Your task to perform on an android device: toggle location history Image 0: 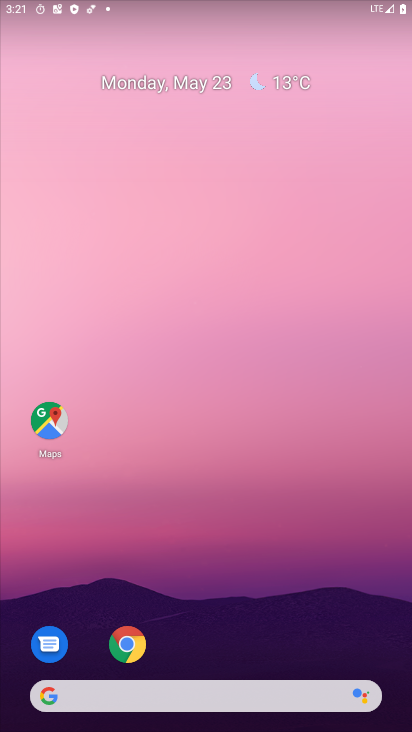
Step 0: drag from (220, 679) to (175, 81)
Your task to perform on an android device: toggle location history Image 1: 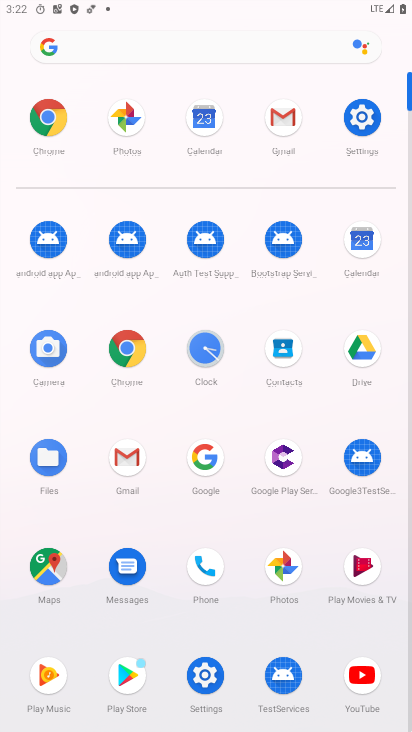
Step 1: click (184, 690)
Your task to perform on an android device: toggle location history Image 2: 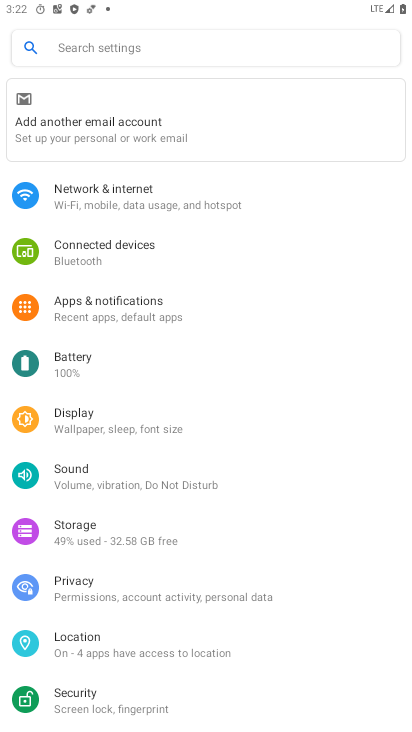
Step 2: click (94, 640)
Your task to perform on an android device: toggle location history Image 3: 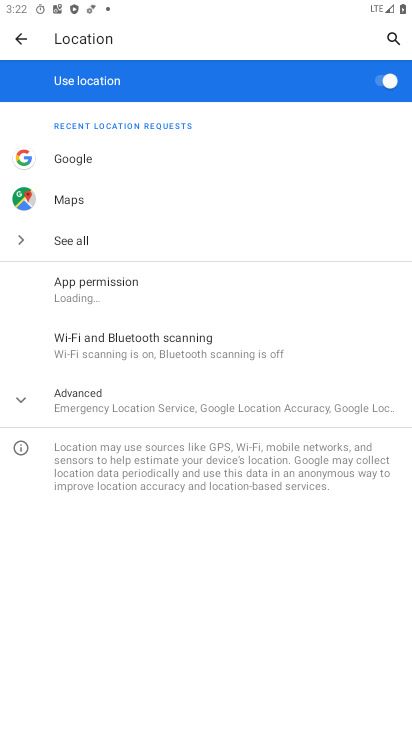
Step 3: click (73, 397)
Your task to perform on an android device: toggle location history Image 4: 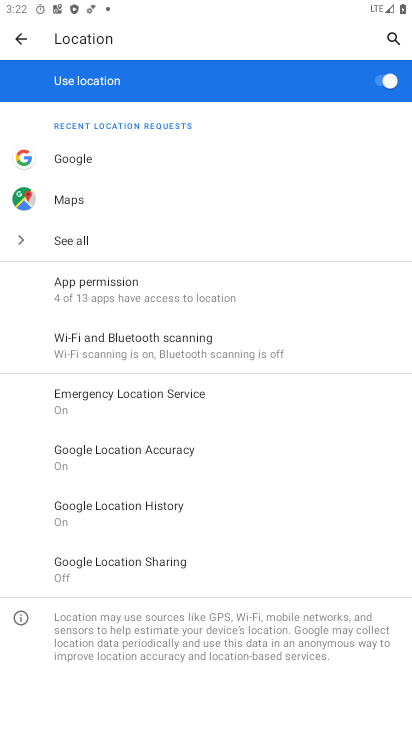
Step 4: click (138, 509)
Your task to perform on an android device: toggle location history Image 5: 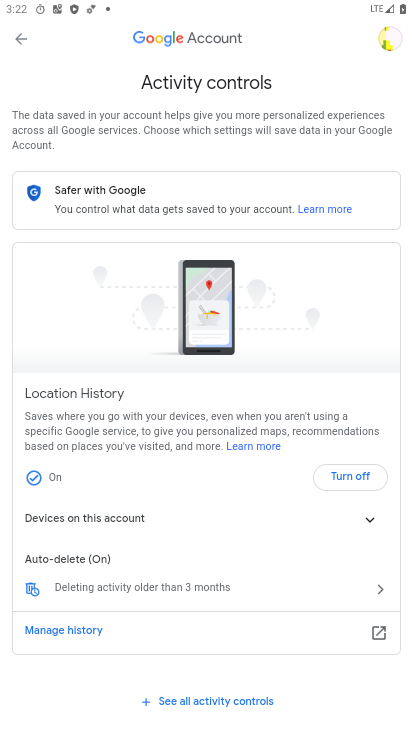
Step 5: drag from (237, 528) to (182, 185)
Your task to perform on an android device: toggle location history Image 6: 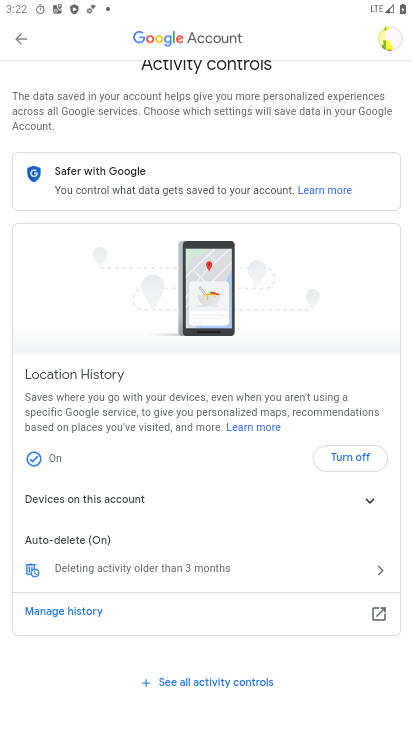
Step 6: click (367, 454)
Your task to perform on an android device: toggle location history Image 7: 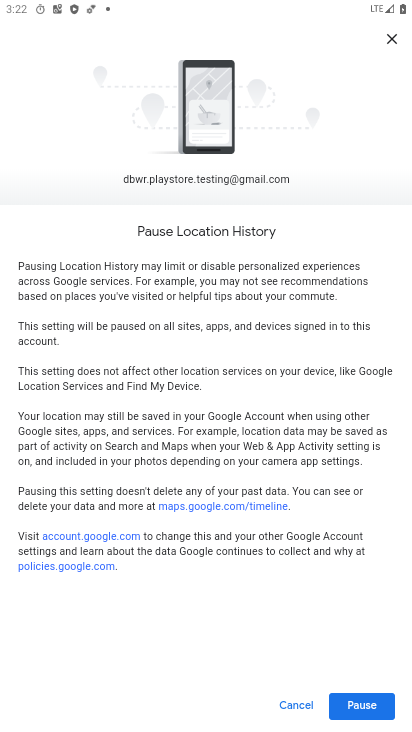
Step 7: click (382, 702)
Your task to perform on an android device: toggle location history Image 8: 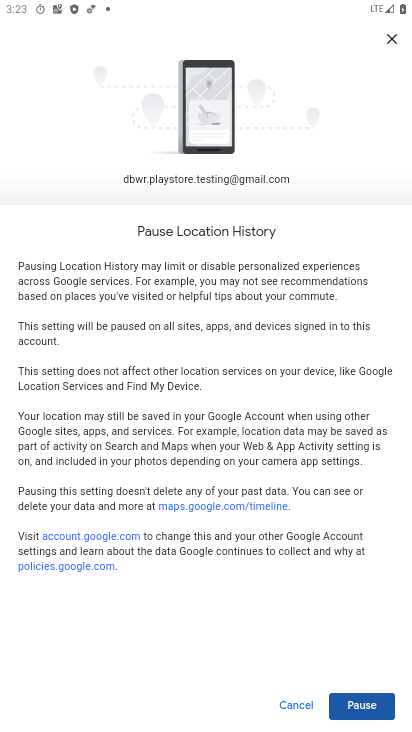
Step 8: task complete